Your task to perform on an android device: What's the weather today? Image 0: 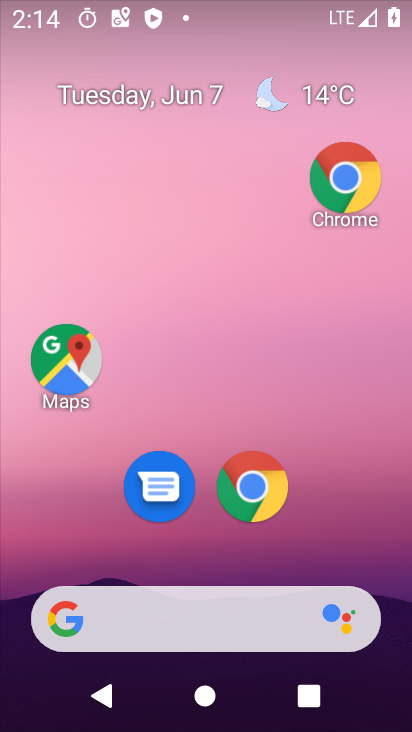
Step 0: click (279, 105)
Your task to perform on an android device: What's the weather today? Image 1: 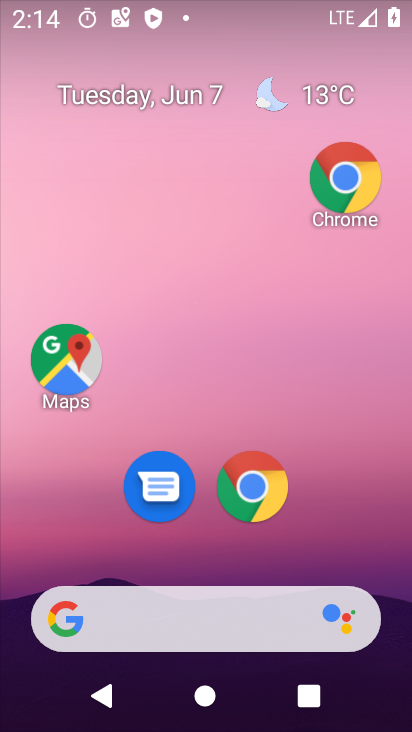
Step 1: click (280, 106)
Your task to perform on an android device: What's the weather today? Image 2: 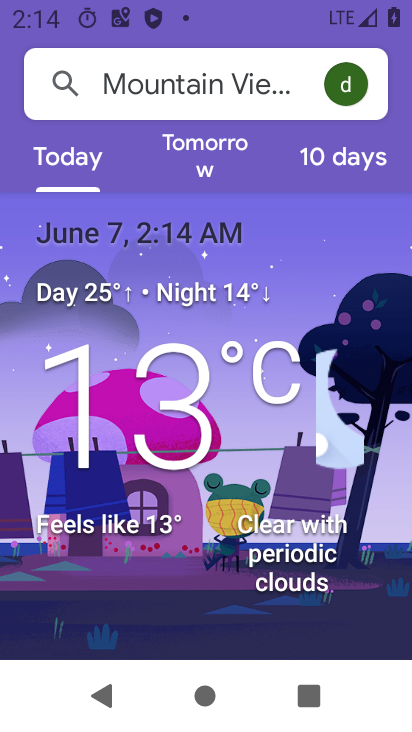
Step 2: task complete